Your task to perform on an android device: turn off notifications settings in the gmail app Image 0: 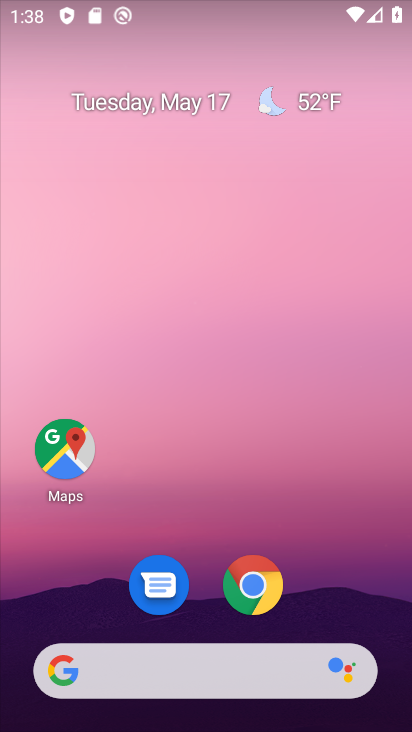
Step 0: drag from (343, 539) to (336, 98)
Your task to perform on an android device: turn off notifications settings in the gmail app Image 1: 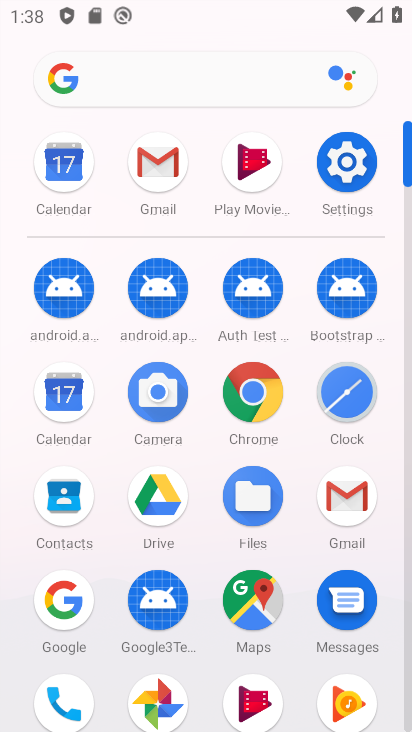
Step 1: click (344, 162)
Your task to perform on an android device: turn off notifications settings in the gmail app Image 2: 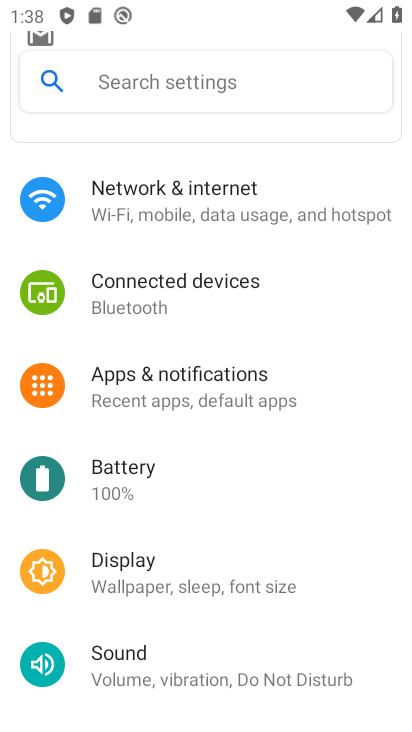
Step 2: click (235, 392)
Your task to perform on an android device: turn off notifications settings in the gmail app Image 3: 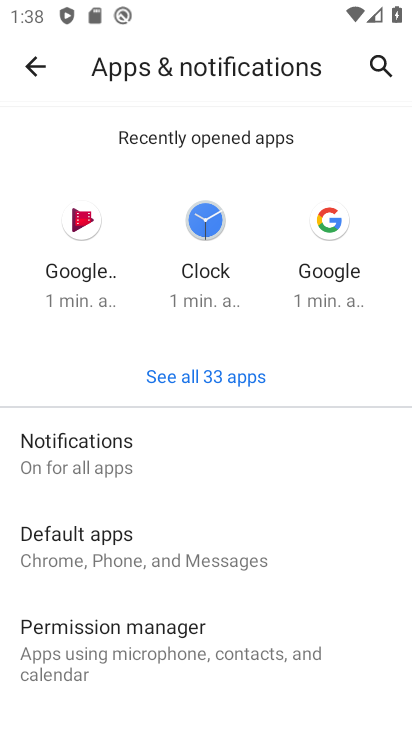
Step 3: click (239, 365)
Your task to perform on an android device: turn off notifications settings in the gmail app Image 4: 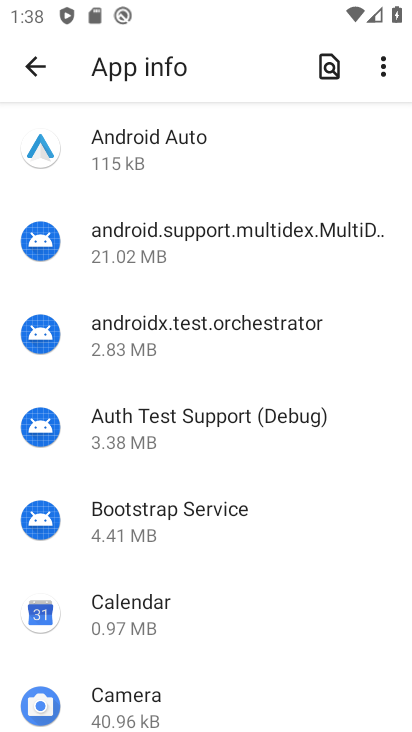
Step 4: drag from (258, 576) to (272, 229)
Your task to perform on an android device: turn off notifications settings in the gmail app Image 5: 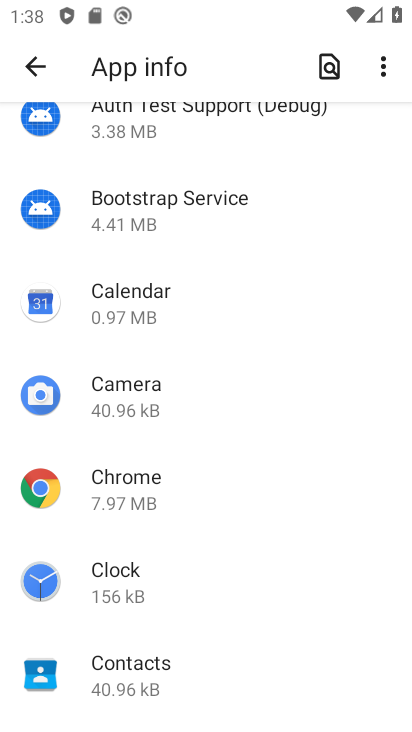
Step 5: drag from (224, 463) to (198, 285)
Your task to perform on an android device: turn off notifications settings in the gmail app Image 6: 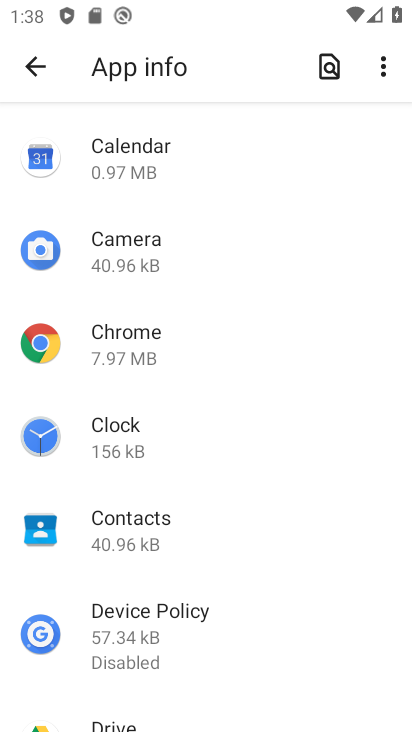
Step 6: drag from (226, 495) to (231, 166)
Your task to perform on an android device: turn off notifications settings in the gmail app Image 7: 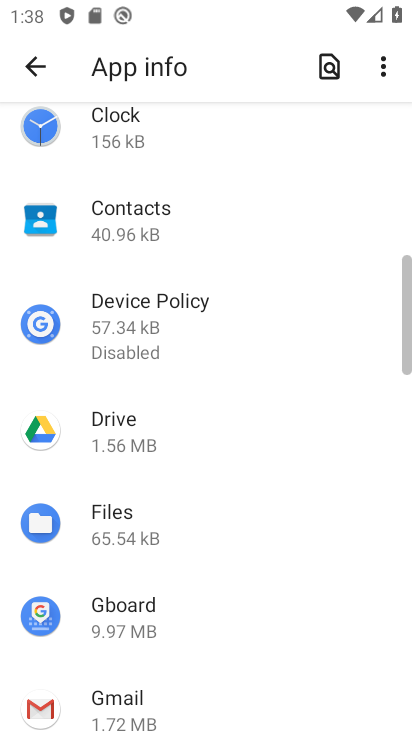
Step 7: drag from (226, 540) to (246, 237)
Your task to perform on an android device: turn off notifications settings in the gmail app Image 8: 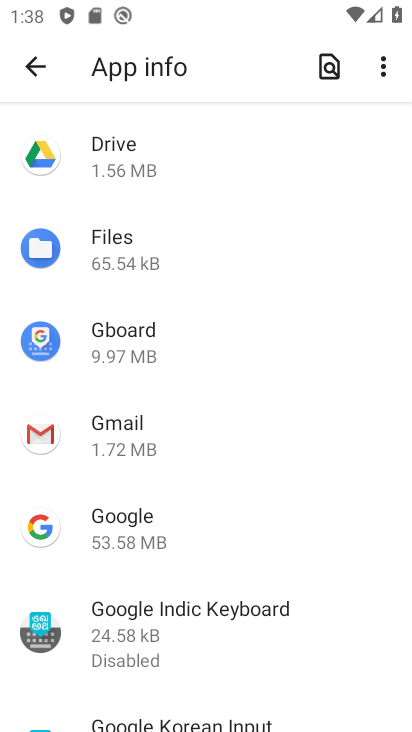
Step 8: click (153, 431)
Your task to perform on an android device: turn off notifications settings in the gmail app Image 9: 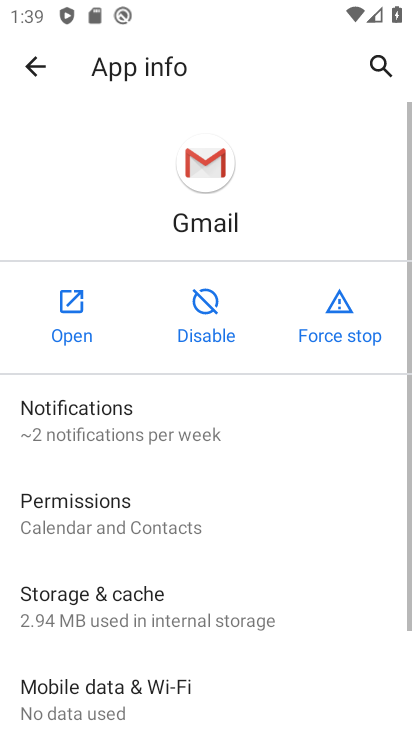
Step 9: click (154, 431)
Your task to perform on an android device: turn off notifications settings in the gmail app Image 10: 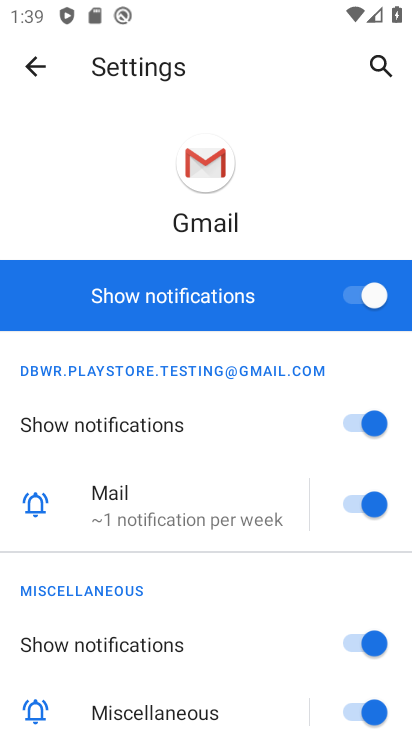
Step 10: click (348, 285)
Your task to perform on an android device: turn off notifications settings in the gmail app Image 11: 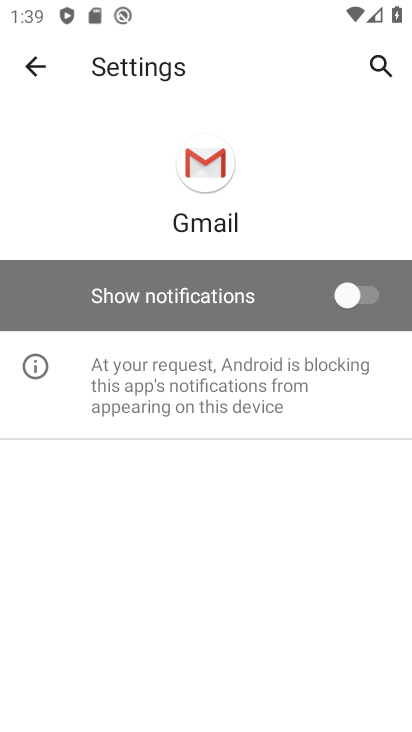
Step 11: task complete